Your task to perform on an android device: Open sound settings Image 0: 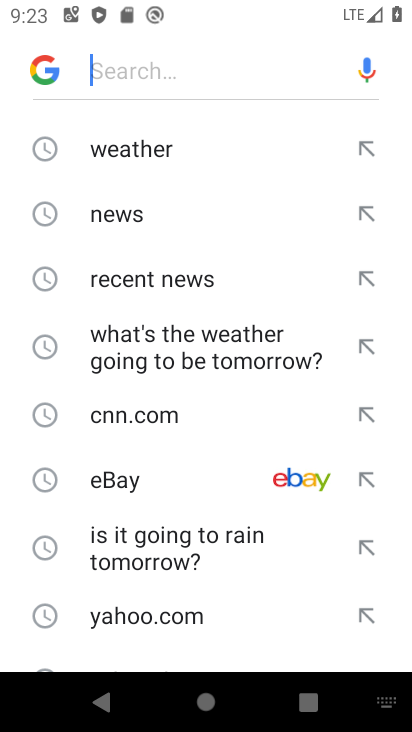
Step 0: press home button
Your task to perform on an android device: Open sound settings Image 1: 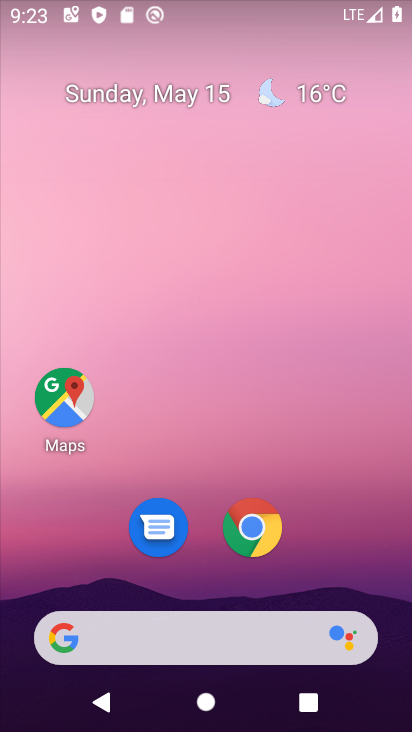
Step 1: drag from (353, 581) to (311, 16)
Your task to perform on an android device: Open sound settings Image 2: 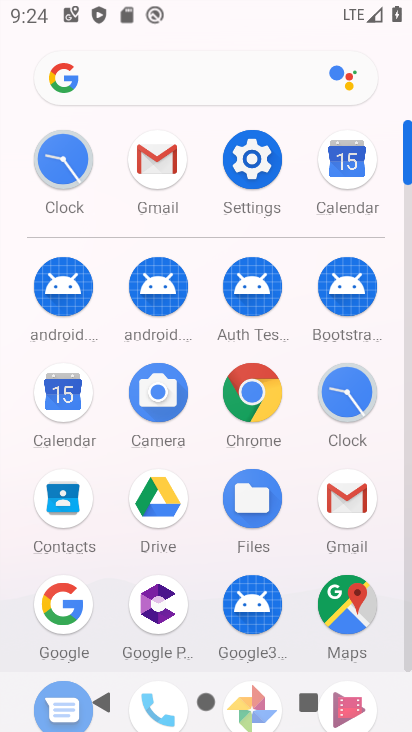
Step 2: click (251, 162)
Your task to perform on an android device: Open sound settings Image 3: 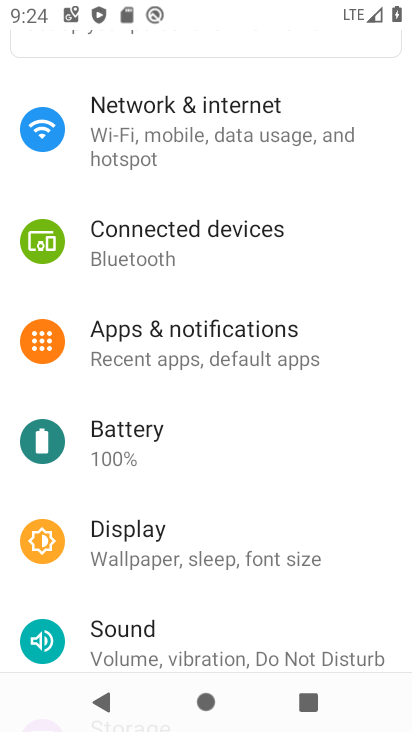
Step 3: click (112, 633)
Your task to perform on an android device: Open sound settings Image 4: 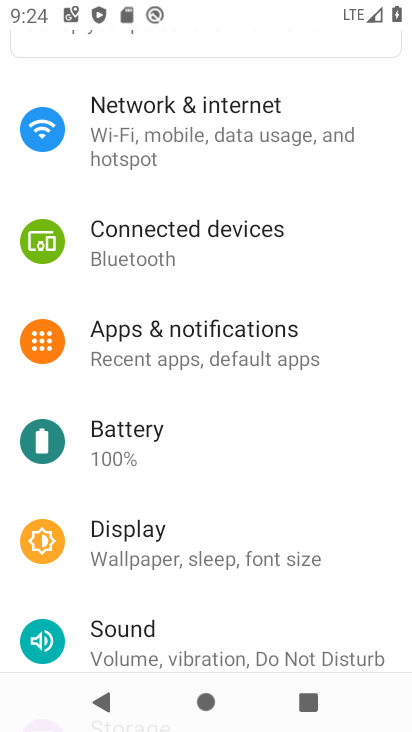
Step 4: click (126, 648)
Your task to perform on an android device: Open sound settings Image 5: 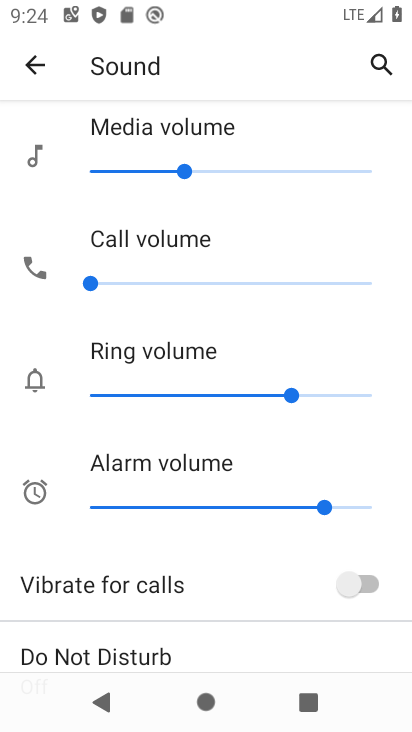
Step 5: task complete